Your task to perform on an android device: Add "logitech g pro" to the cart on ebay.com, then select checkout. Image 0: 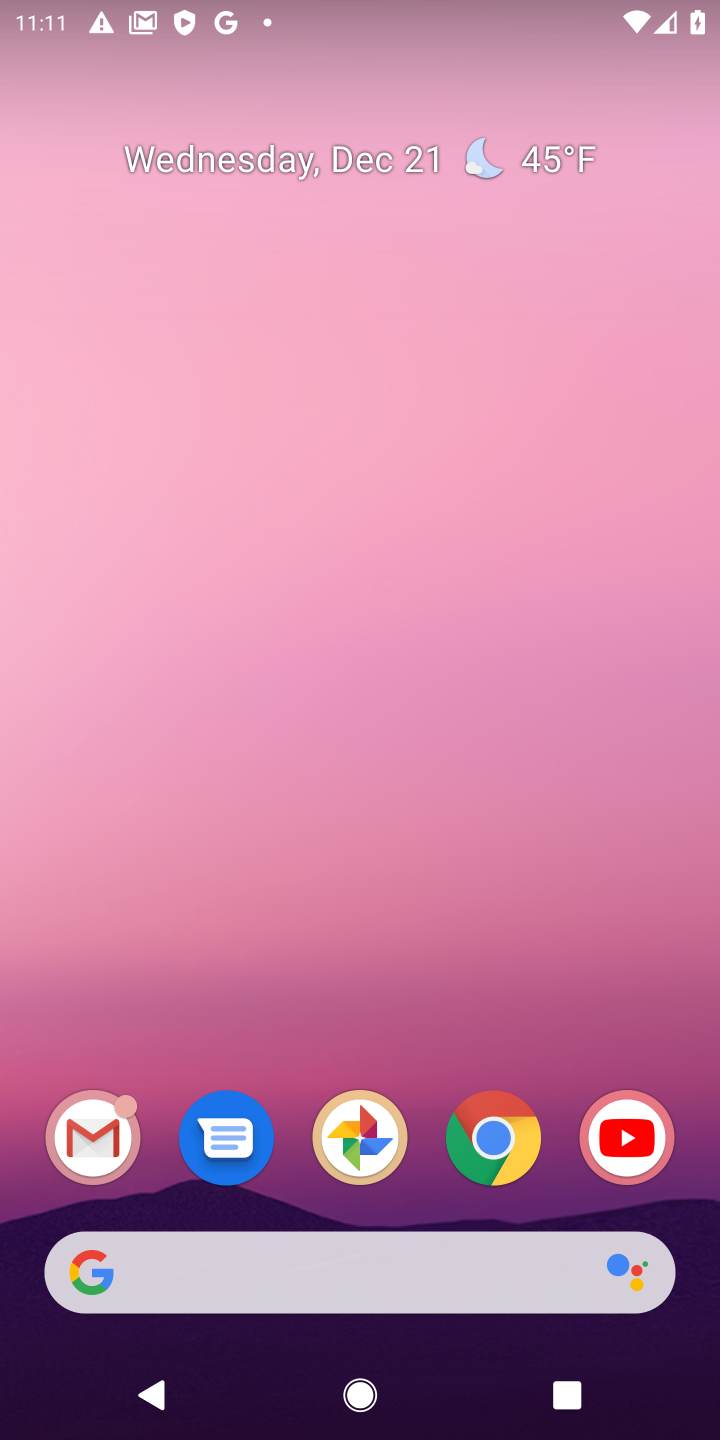
Step 0: click (494, 1145)
Your task to perform on an android device: Add "logitech g pro" to the cart on ebay.com, then select checkout. Image 1: 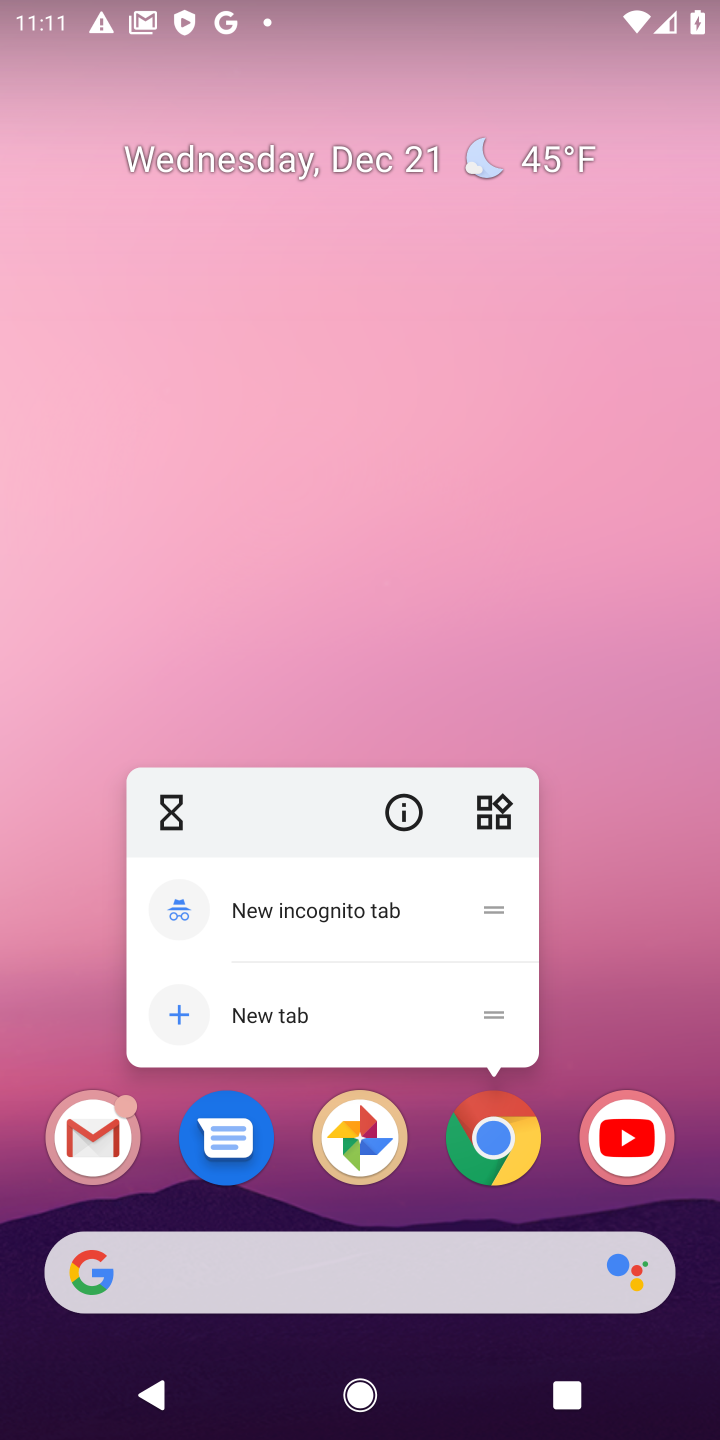
Step 1: click (494, 1145)
Your task to perform on an android device: Add "logitech g pro" to the cart on ebay.com, then select checkout. Image 2: 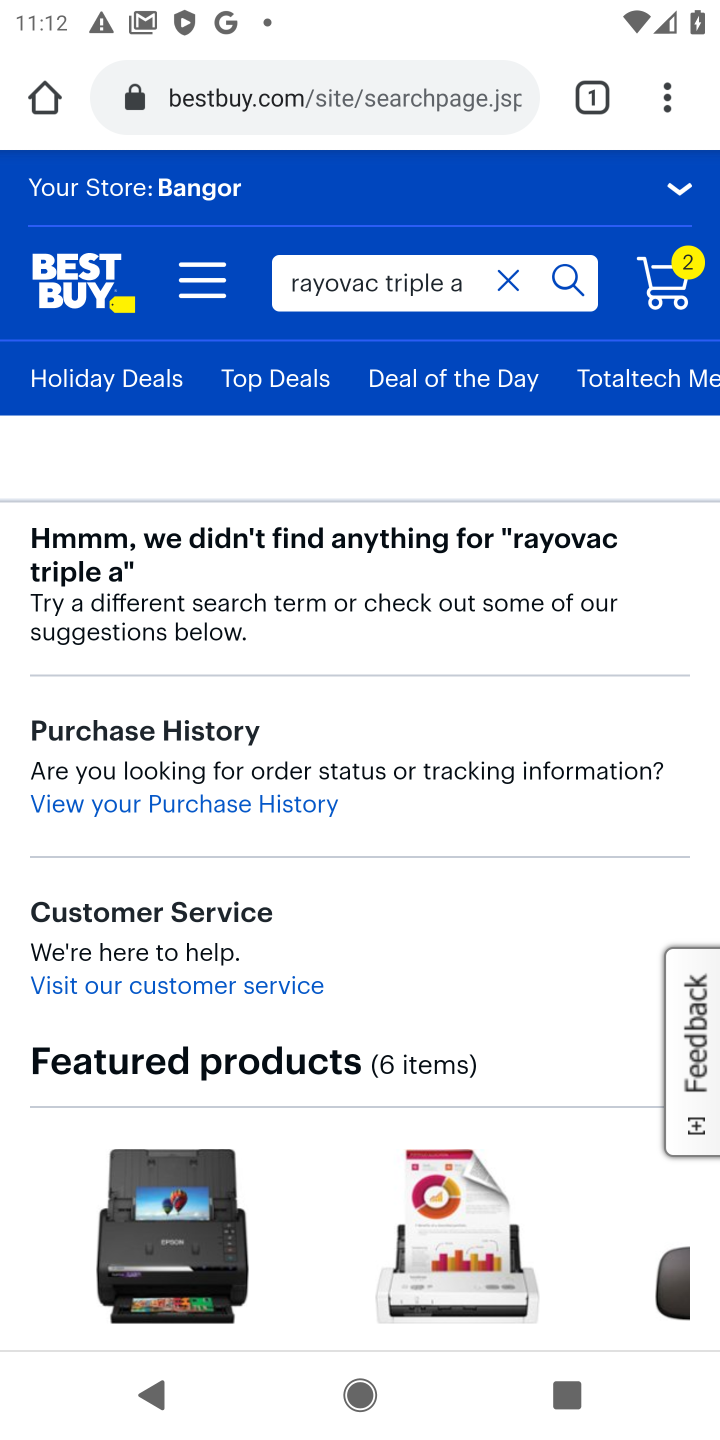
Step 2: click (260, 100)
Your task to perform on an android device: Add "logitech g pro" to the cart on ebay.com, then select checkout. Image 3: 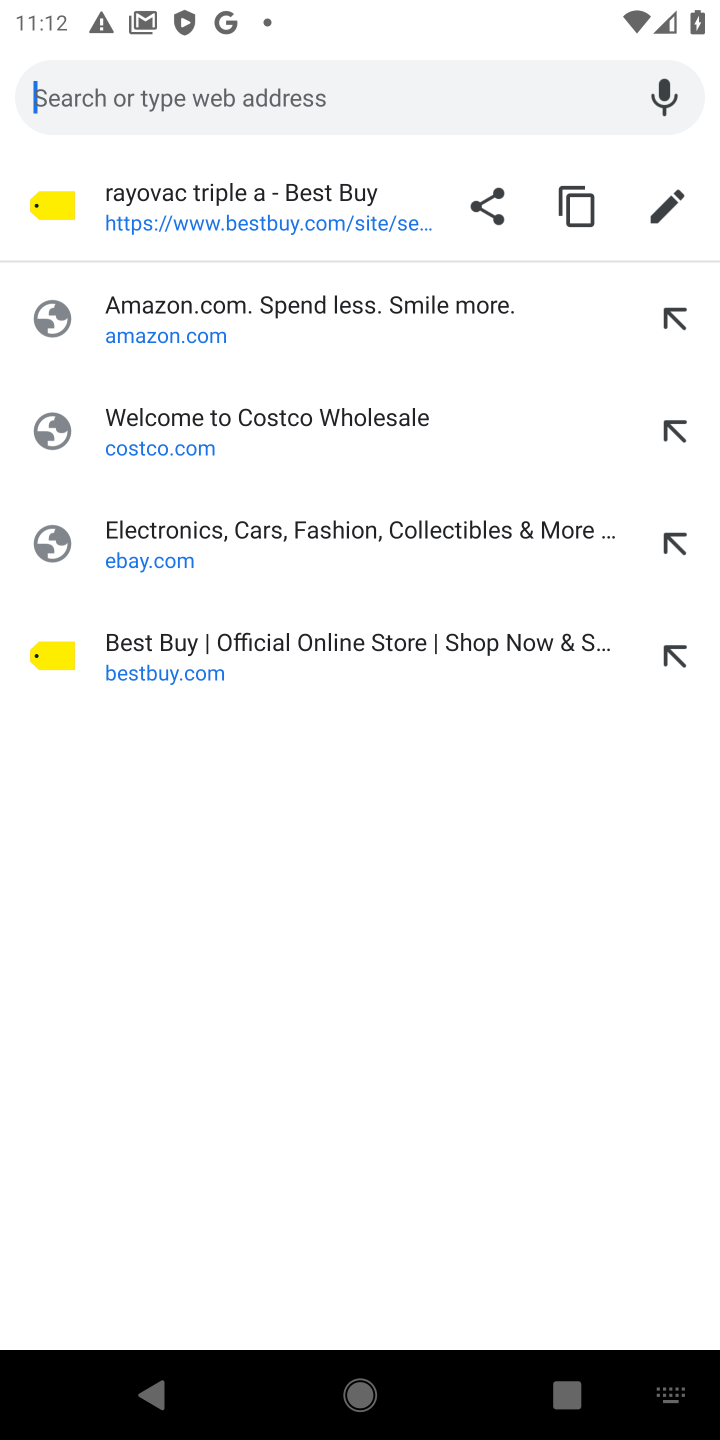
Step 3: click (131, 532)
Your task to perform on an android device: Add "logitech g pro" to the cart on ebay.com, then select checkout. Image 4: 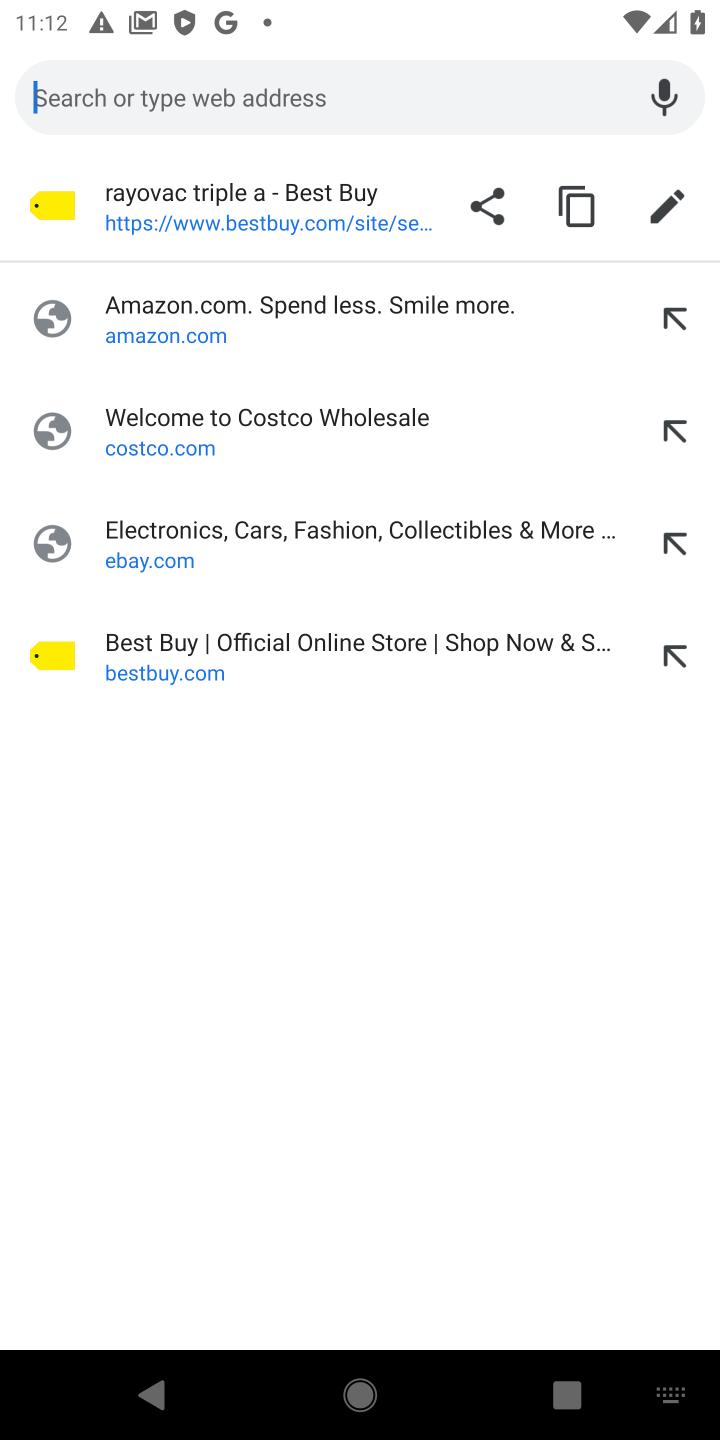
Step 4: click (132, 543)
Your task to perform on an android device: Add "logitech g pro" to the cart on ebay.com, then select checkout. Image 5: 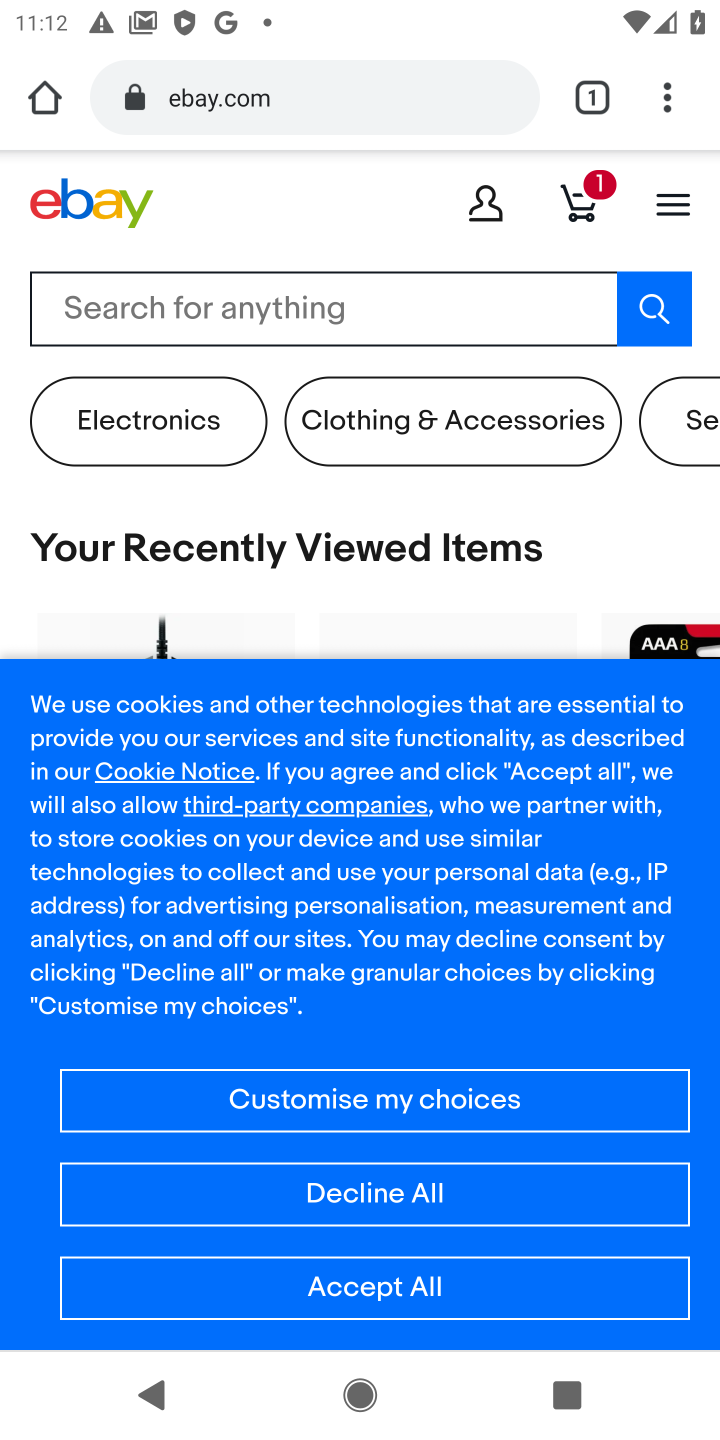
Step 5: click (115, 300)
Your task to perform on an android device: Add "logitech g pro" to the cart on ebay.com, then select checkout. Image 6: 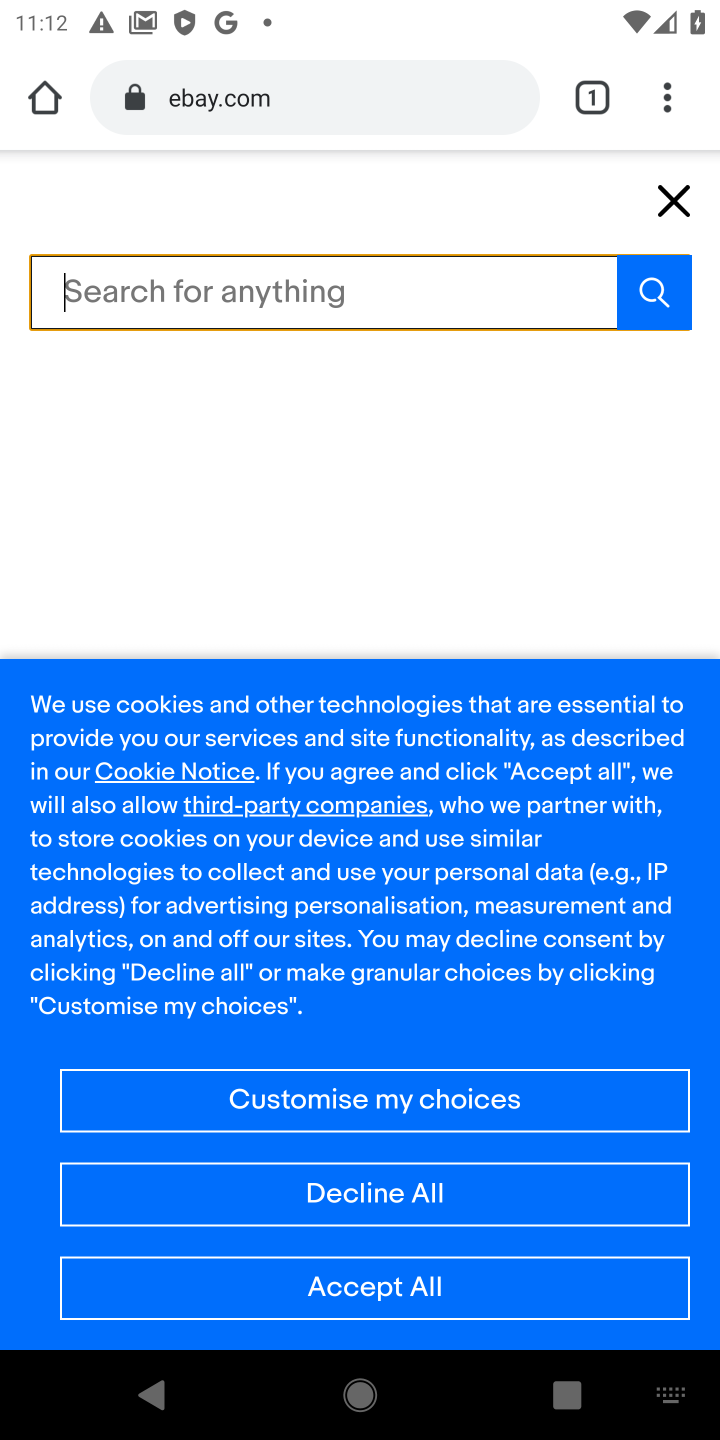
Step 6: type "logitech g pro"
Your task to perform on an android device: Add "logitech g pro" to the cart on ebay.com, then select checkout. Image 7: 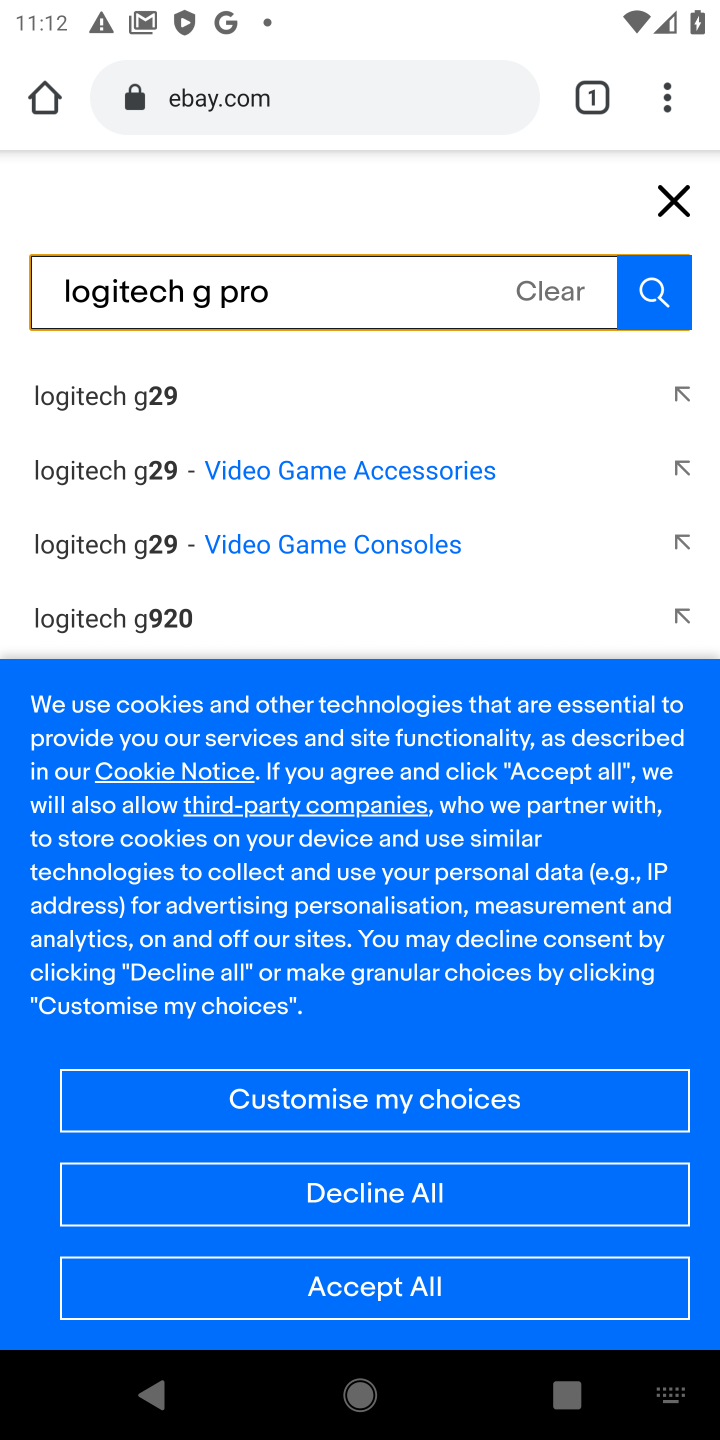
Step 7: click (660, 304)
Your task to perform on an android device: Add "logitech g pro" to the cart on ebay.com, then select checkout. Image 8: 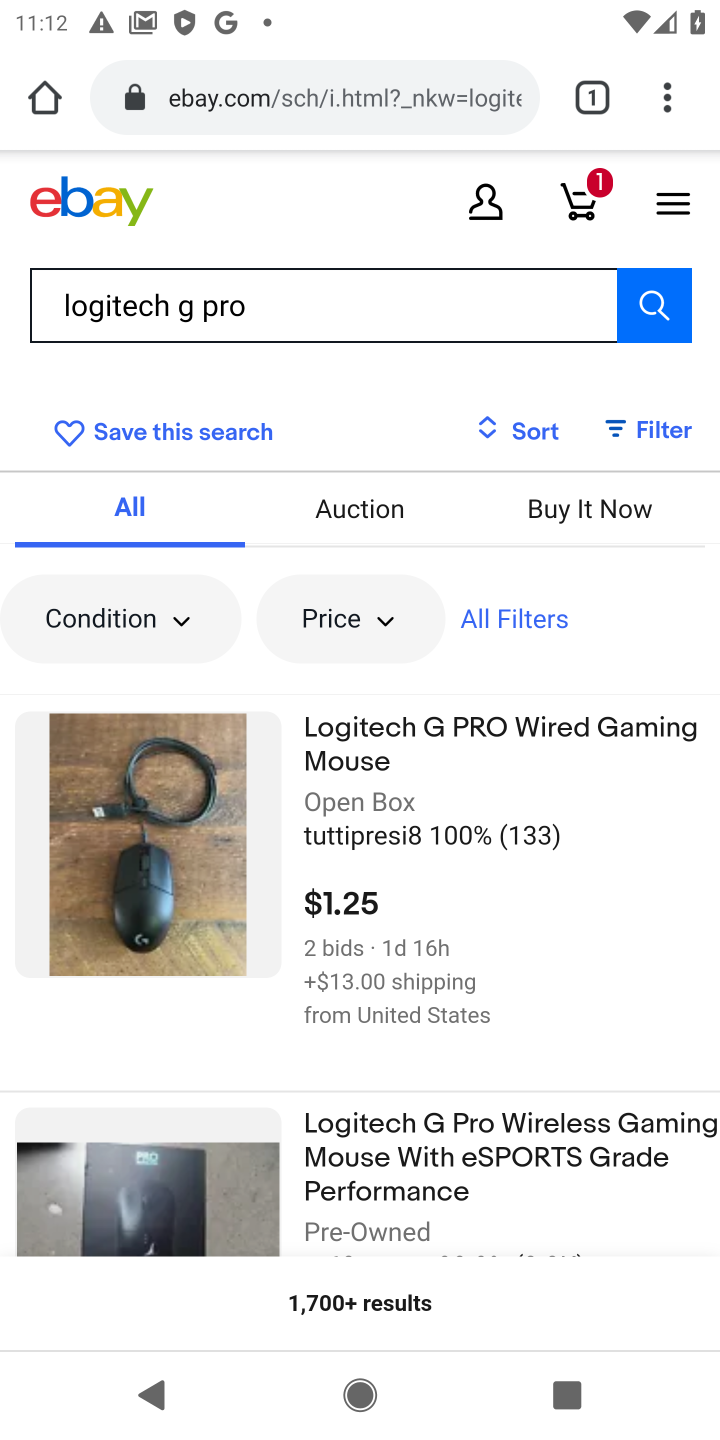
Step 8: drag from (317, 811) to (307, 356)
Your task to perform on an android device: Add "logitech g pro" to the cart on ebay.com, then select checkout. Image 9: 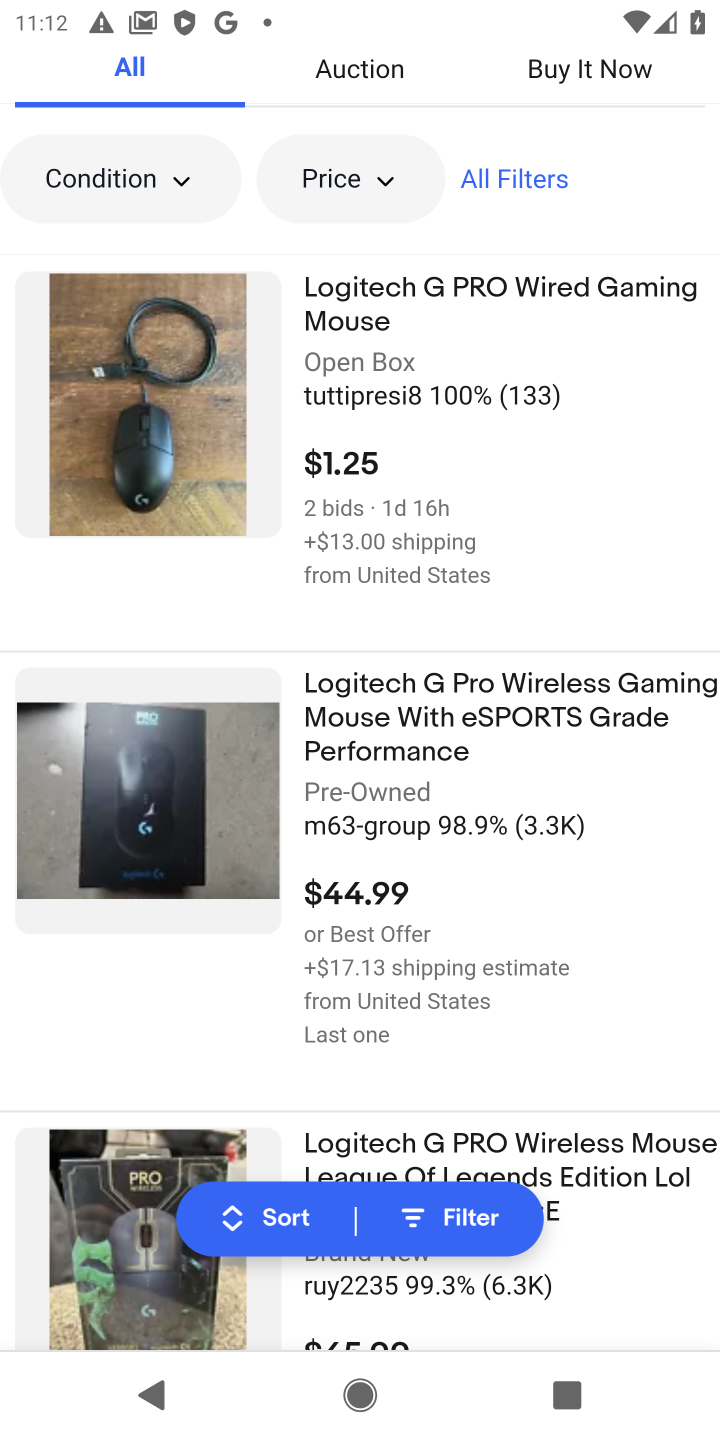
Step 9: click (343, 727)
Your task to perform on an android device: Add "logitech g pro" to the cart on ebay.com, then select checkout. Image 10: 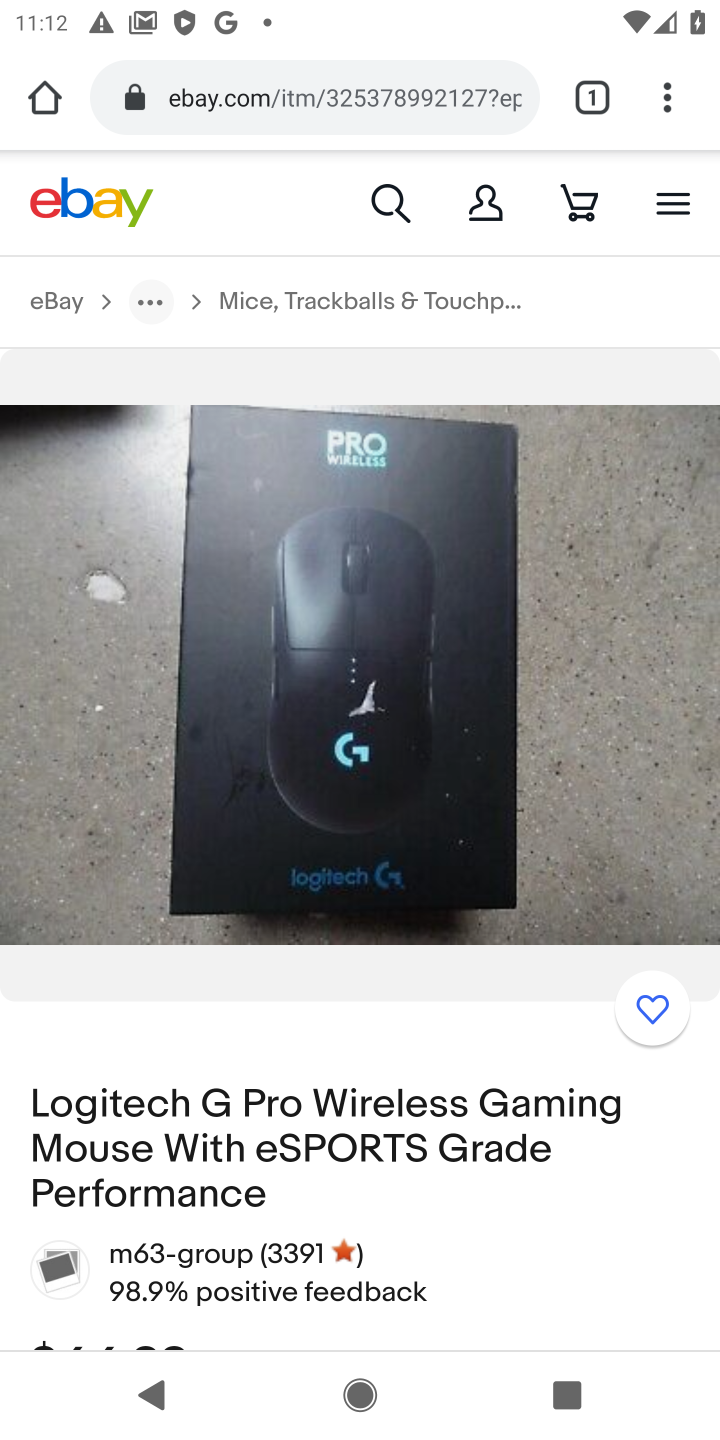
Step 10: drag from (308, 978) to (328, 373)
Your task to perform on an android device: Add "logitech g pro" to the cart on ebay.com, then select checkout. Image 11: 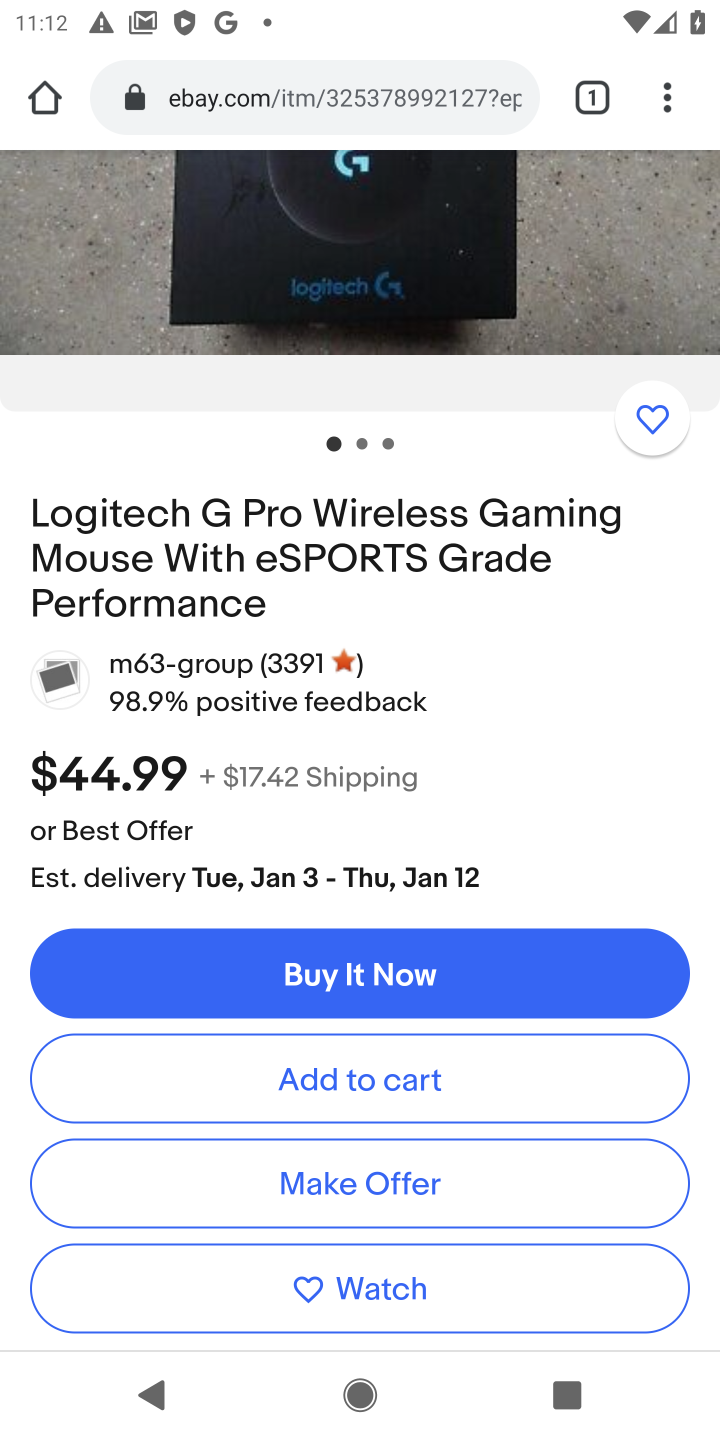
Step 11: click (342, 1081)
Your task to perform on an android device: Add "logitech g pro" to the cart on ebay.com, then select checkout. Image 12: 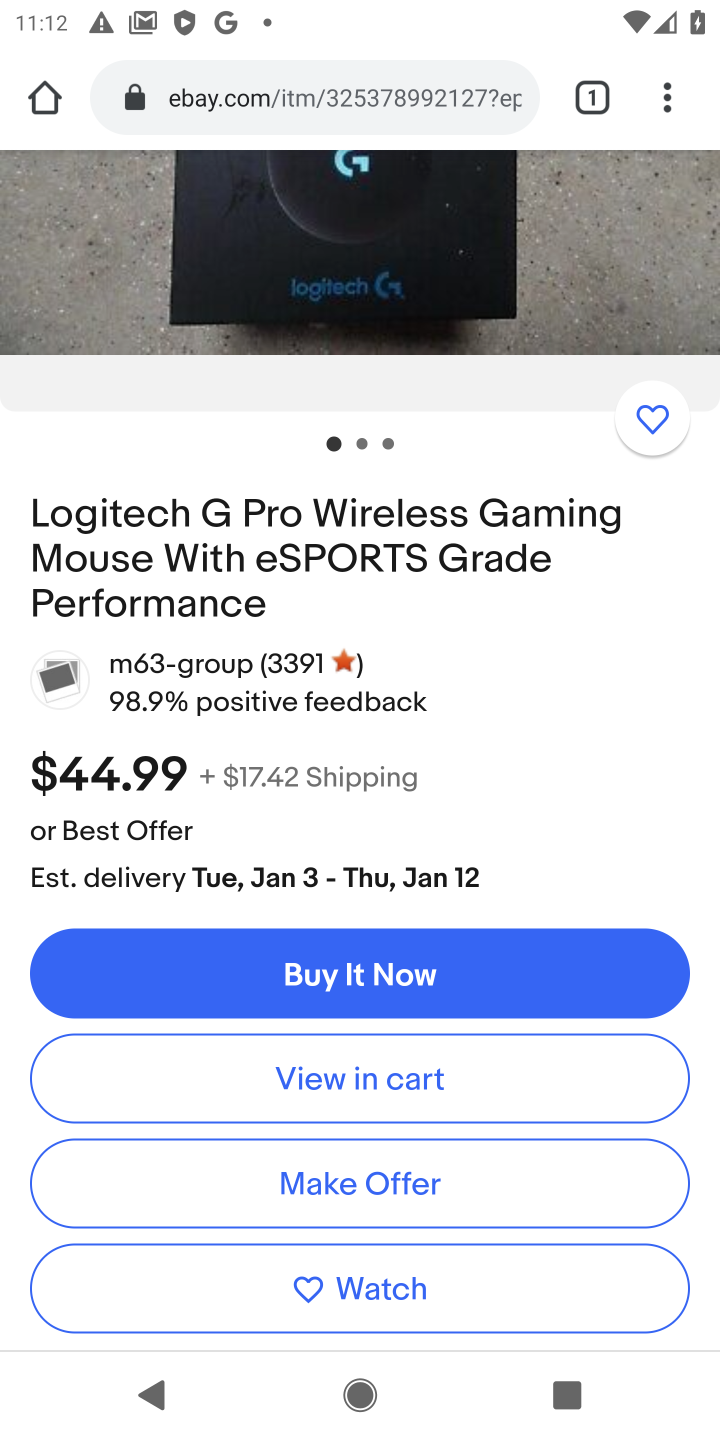
Step 12: click (342, 1083)
Your task to perform on an android device: Add "logitech g pro" to the cart on ebay.com, then select checkout. Image 13: 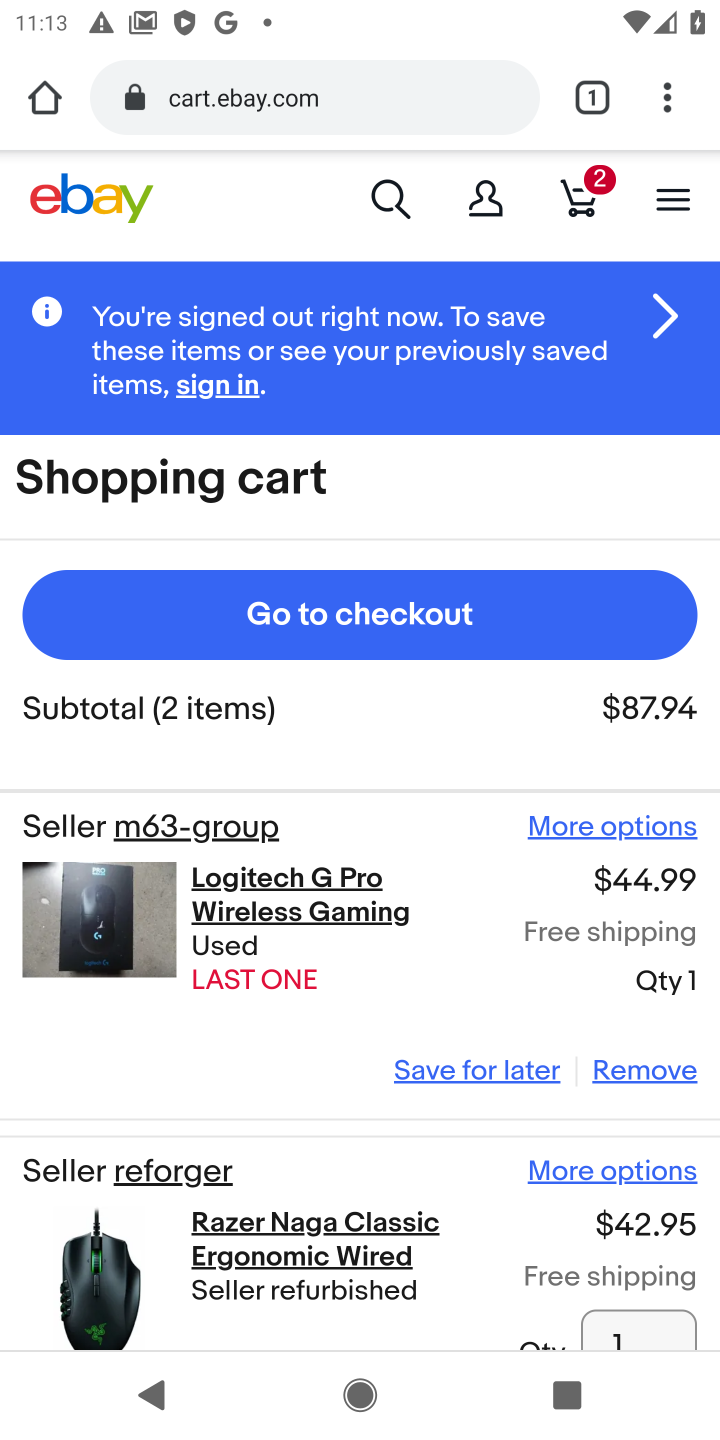
Step 13: click (346, 617)
Your task to perform on an android device: Add "logitech g pro" to the cart on ebay.com, then select checkout. Image 14: 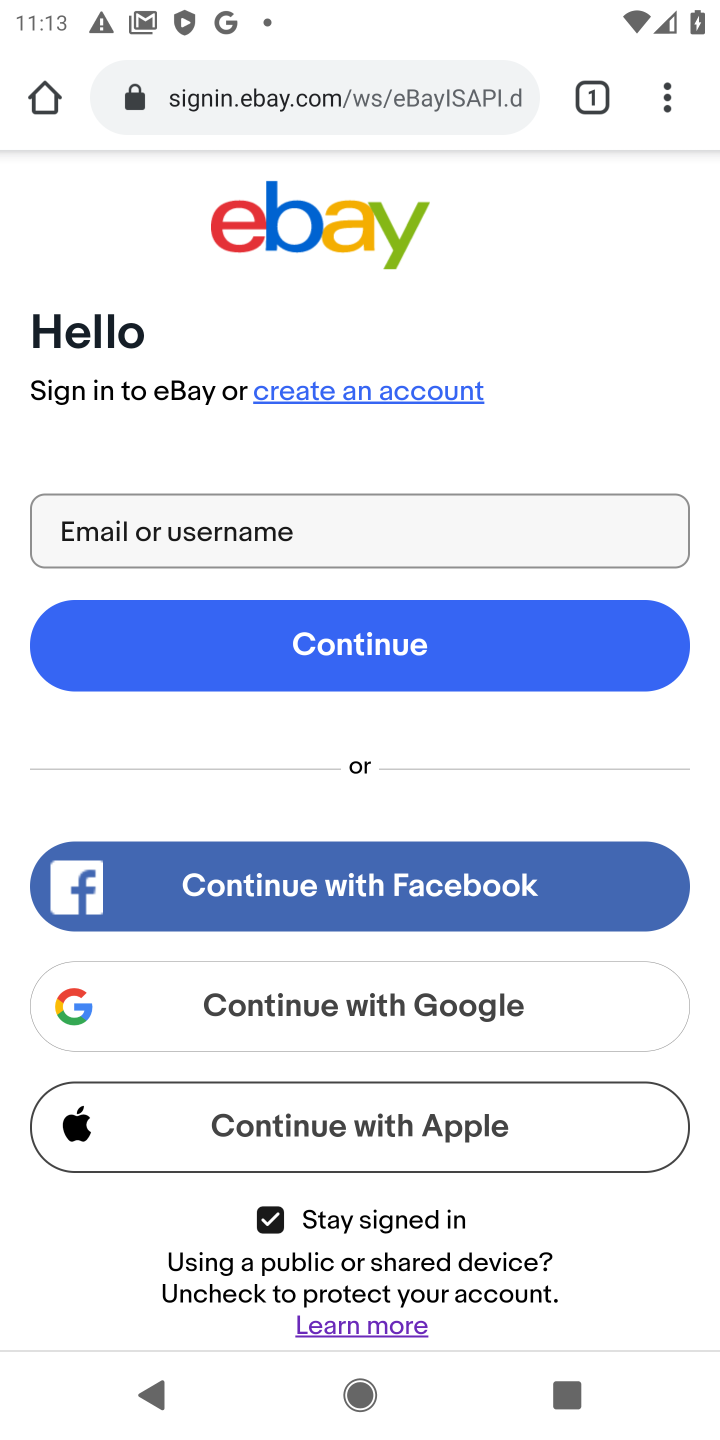
Step 14: task complete